Your task to perform on an android device: Open the Play Movies app and select the watchlist tab. Image 0: 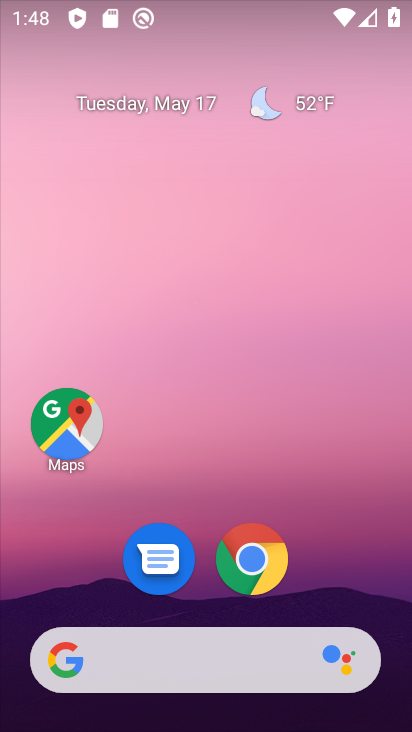
Step 0: drag from (183, 715) to (190, 145)
Your task to perform on an android device: Open the Play Movies app and select the watchlist tab. Image 1: 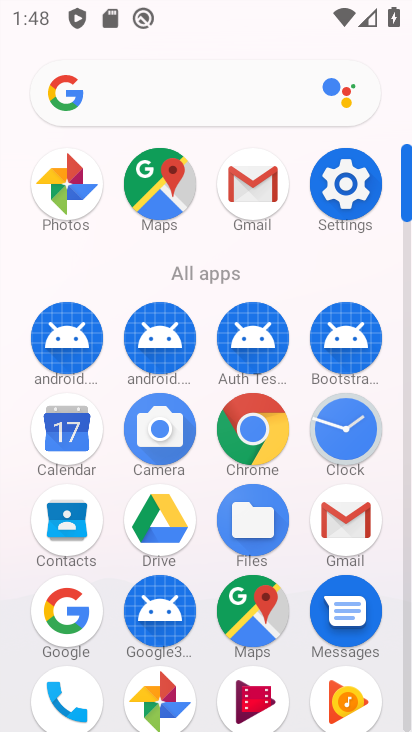
Step 1: click (257, 692)
Your task to perform on an android device: Open the Play Movies app and select the watchlist tab. Image 2: 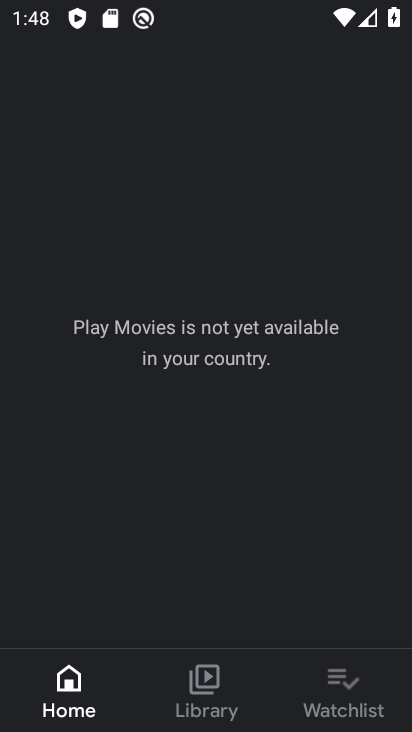
Step 2: click (340, 689)
Your task to perform on an android device: Open the Play Movies app and select the watchlist tab. Image 3: 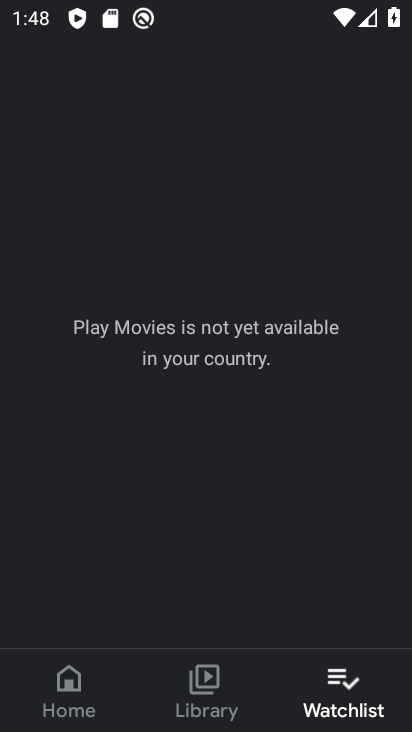
Step 3: task complete